Your task to perform on an android device: Go to Yahoo.com Image 0: 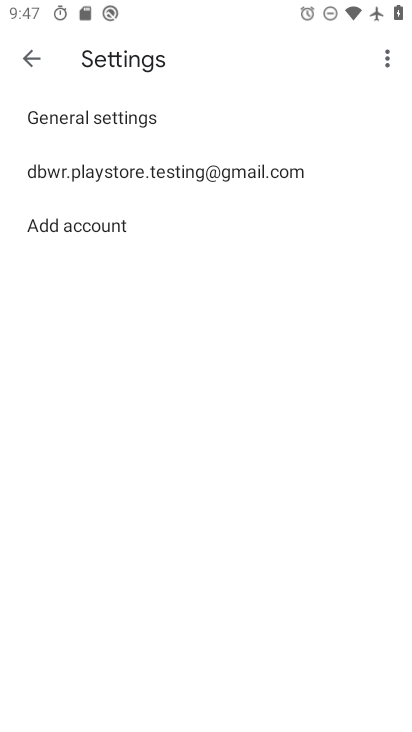
Step 0: press home button
Your task to perform on an android device: Go to Yahoo.com Image 1: 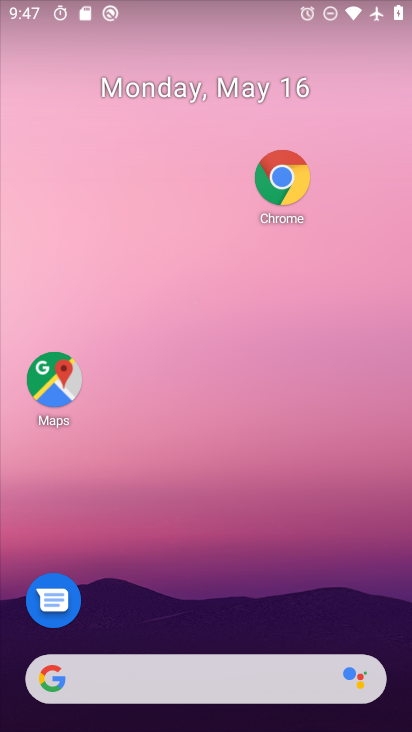
Step 1: drag from (191, 682) to (264, 89)
Your task to perform on an android device: Go to Yahoo.com Image 2: 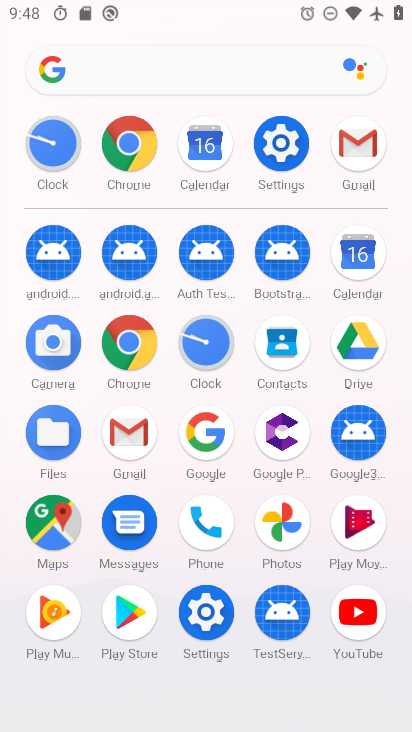
Step 2: click (134, 156)
Your task to perform on an android device: Go to Yahoo.com Image 3: 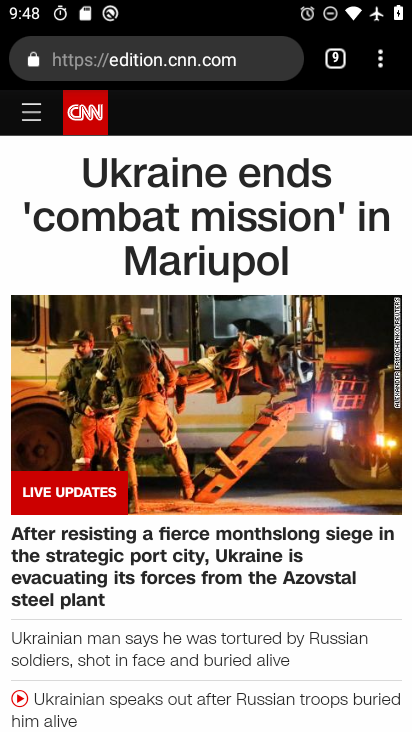
Step 3: drag from (383, 64) to (317, 116)
Your task to perform on an android device: Go to Yahoo.com Image 4: 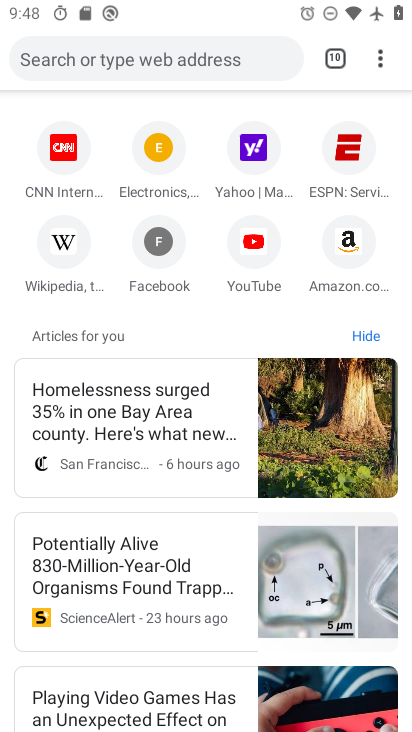
Step 4: click (261, 153)
Your task to perform on an android device: Go to Yahoo.com Image 5: 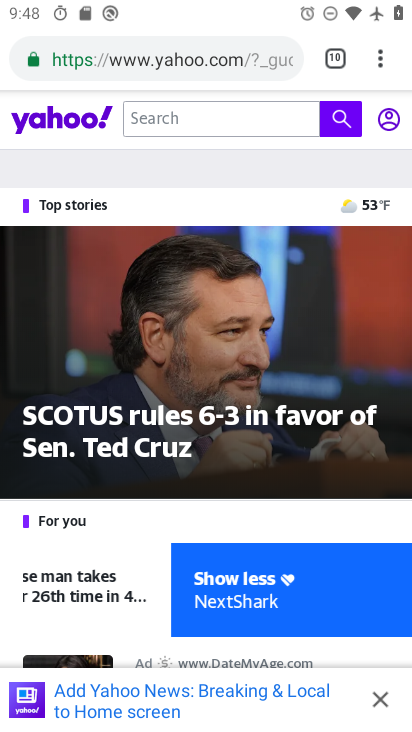
Step 5: task complete